Your task to perform on an android device: Turn on the flashlight Image 0: 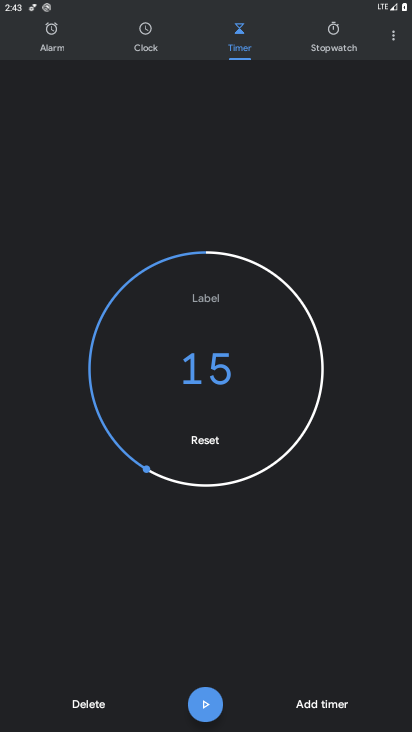
Step 0: press home button
Your task to perform on an android device: Turn on the flashlight Image 1: 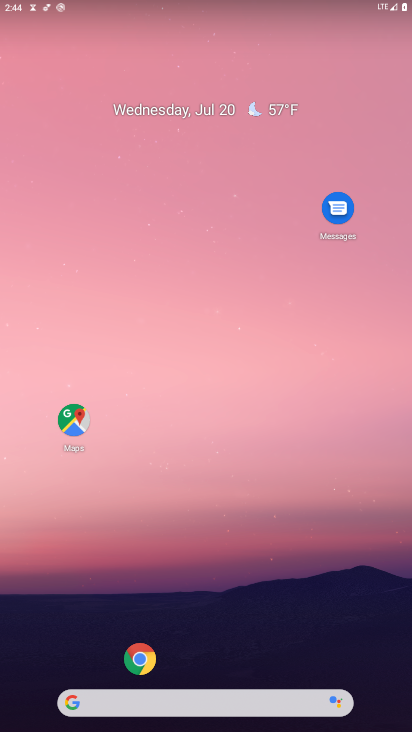
Step 1: drag from (21, 673) to (302, 2)
Your task to perform on an android device: Turn on the flashlight Image 2: 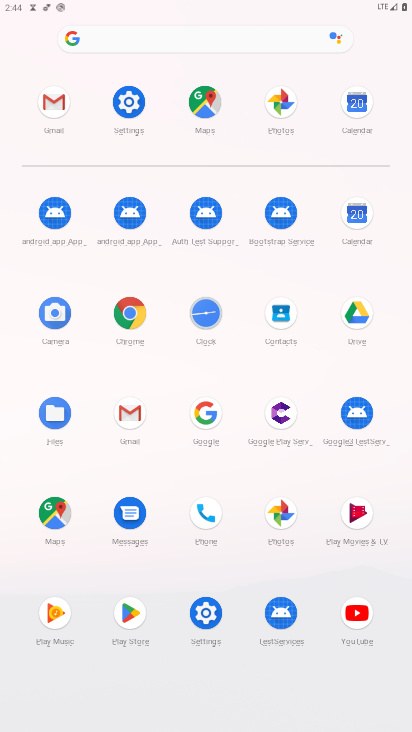
Step 2: click (189, 619)
Your task to perform on an android device: Turn on the flashlight Image 3: 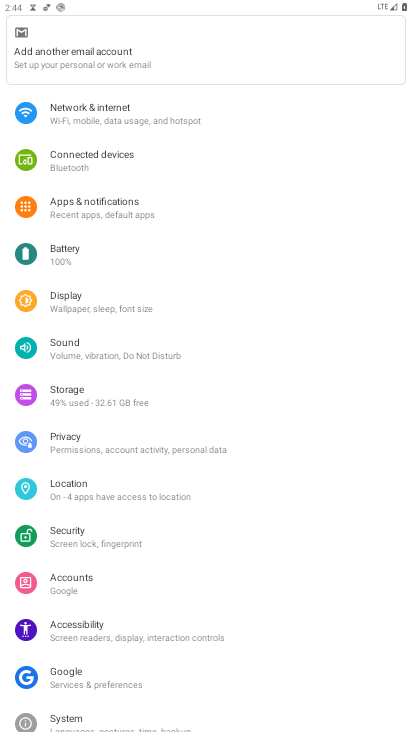
Step 3: click (96, 365)
Your task to perform on an android device: Turn on the flashlight Image 4: 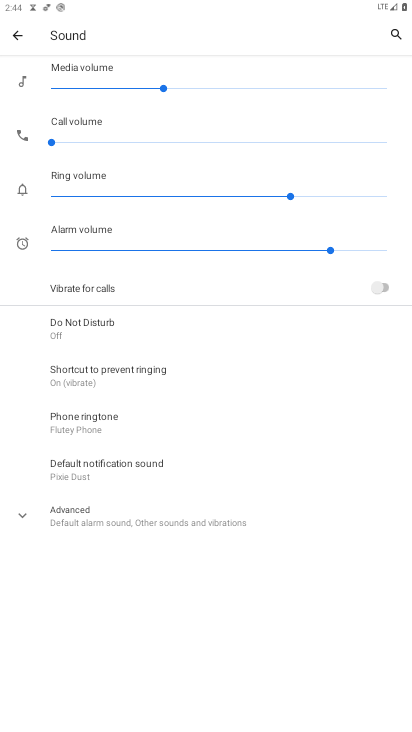
Step 4: task complete